Your task to perform on an android device: Go to calendar. Show me events next week Image 0: 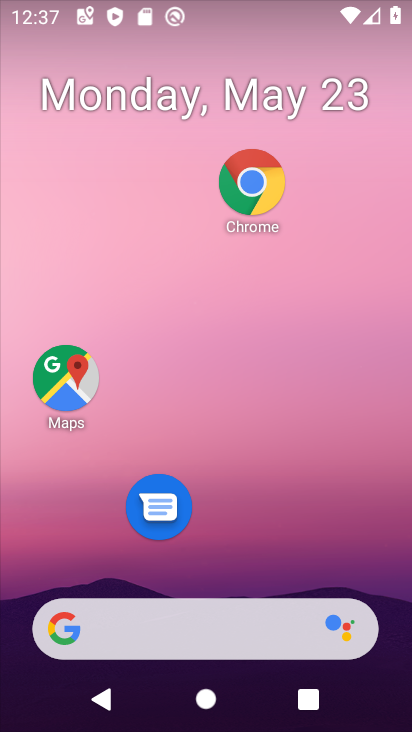
Step 0: drag from (257, 706) to (253, 132)
Your task to perform on an android device: Go to calendar. Show me events next week Image 1: 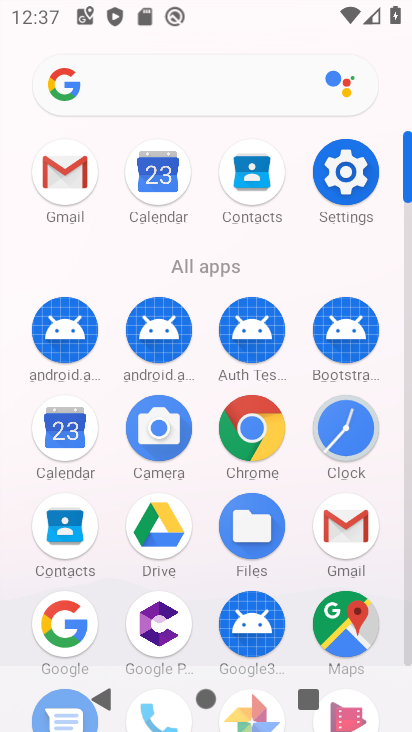
Step 1: click (75, 437)
Your task to perform on an android device: Go to calendar. Show me events next week Image 2: 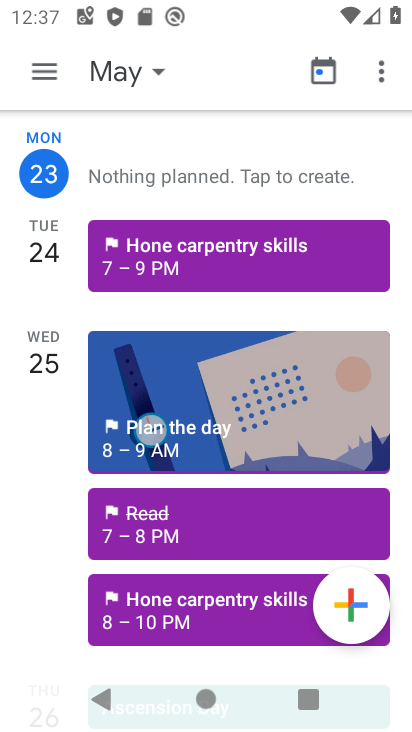
Step 2: click (133, 67)
Your task to perform on an android device: Go to calendar. Show me events next week Image 3: 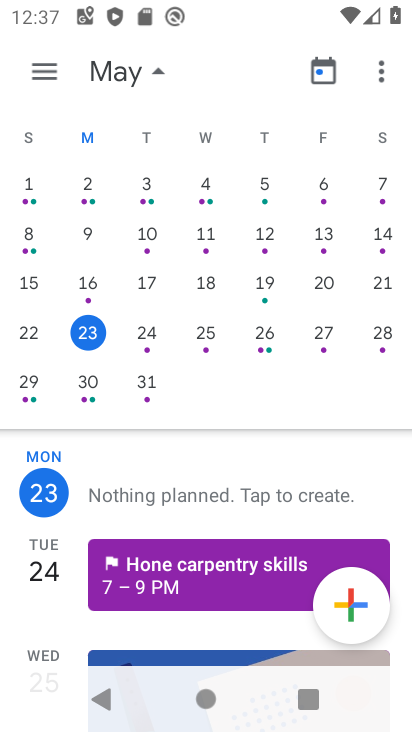
Step 3: click (15, 381)
Your task to perform on an android device: Go to calendar. Show me events next week Image 4: 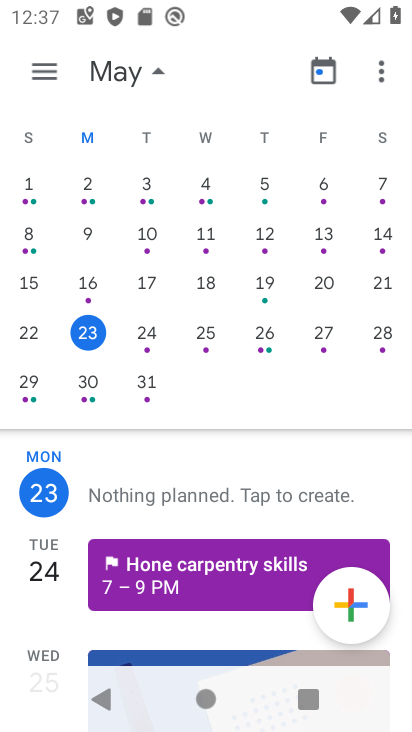
Step 4: click (30, 379)
Your task to perform on an android device: Go to calendar. Show me events next week Image 5: 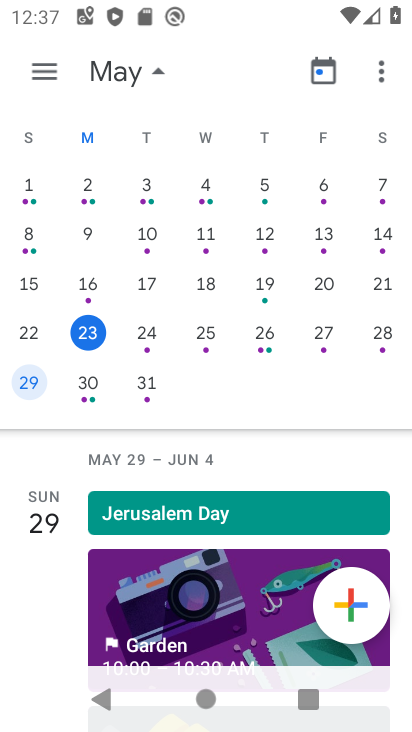
Step 5: click (34, 382)
Your task to perform on an android device: Go to calendar. Show me events next week Image 6: 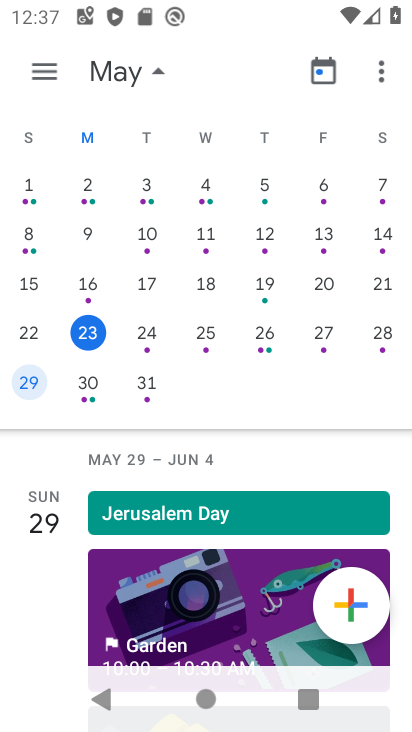
Step 6: task complete